Your task to perform on an android device: turn off smart reply in the gmail app Image 0: 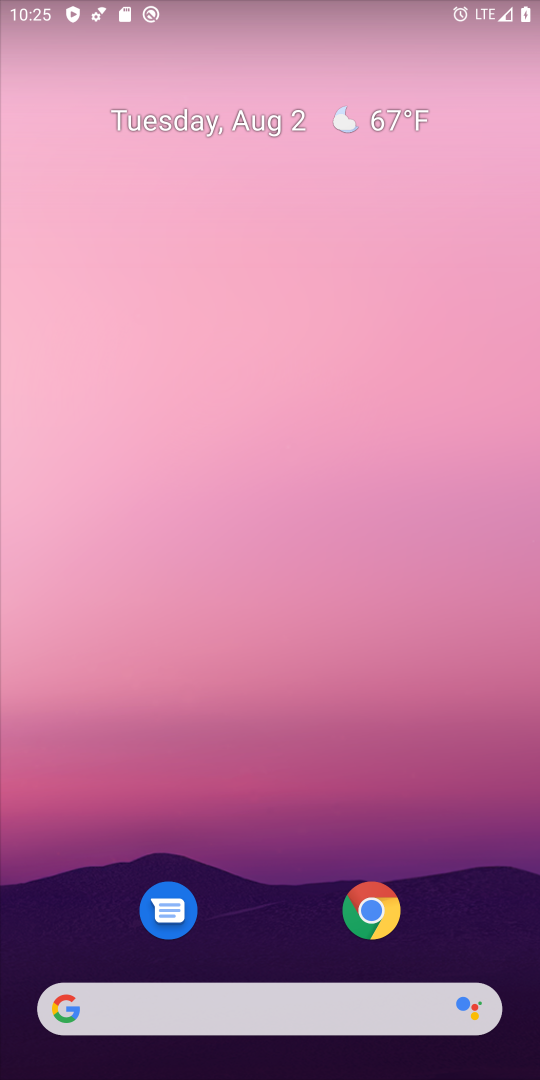
Step 0: drag from (296, 932) to (311, 773)
Your task to perform on an android device: turn off smart reply in the gmail app Image 1: 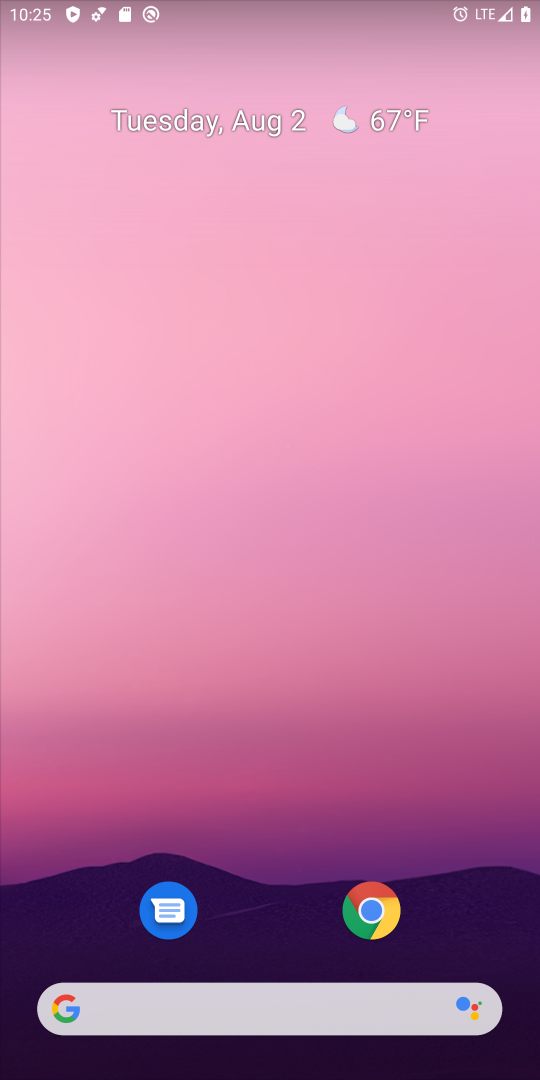
Step 1: drag from (269, 933) to (303, 150)
Your task to perform on an android device: turn off smart reply in the gmail app Image 2: 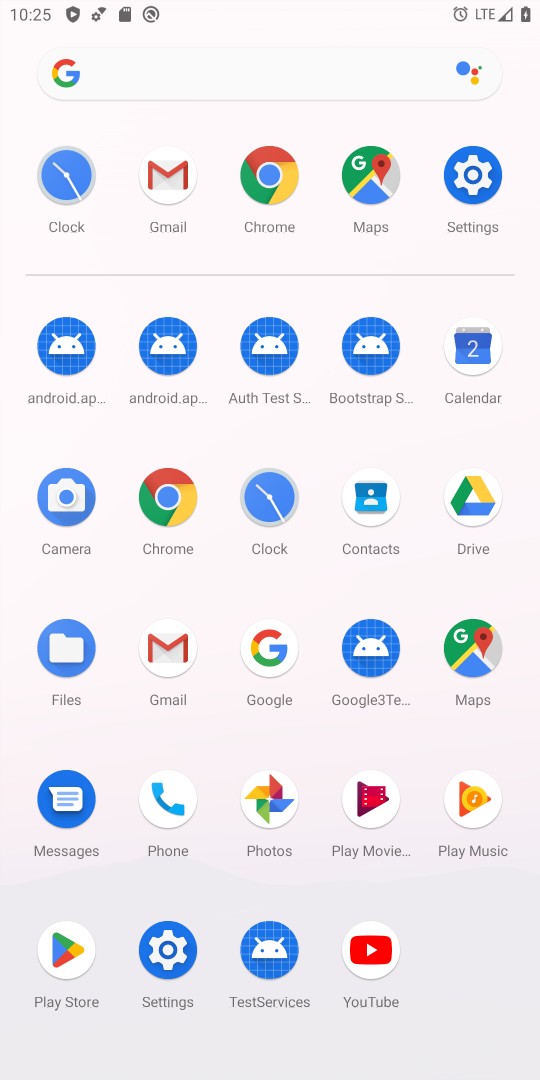
Step 2: click (176, 646)
Your task to perform on an android device: turn off smart reply in the gmail app Image 3: 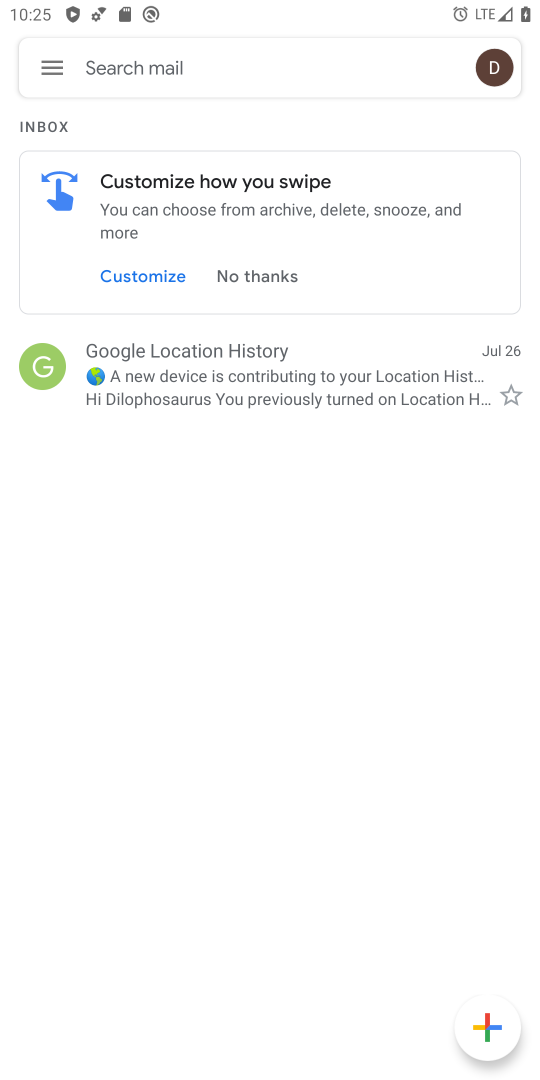
Step 3: click (58, 68)
Your task to perform on an android device: turn off smart reply in the gmail app Image 4: 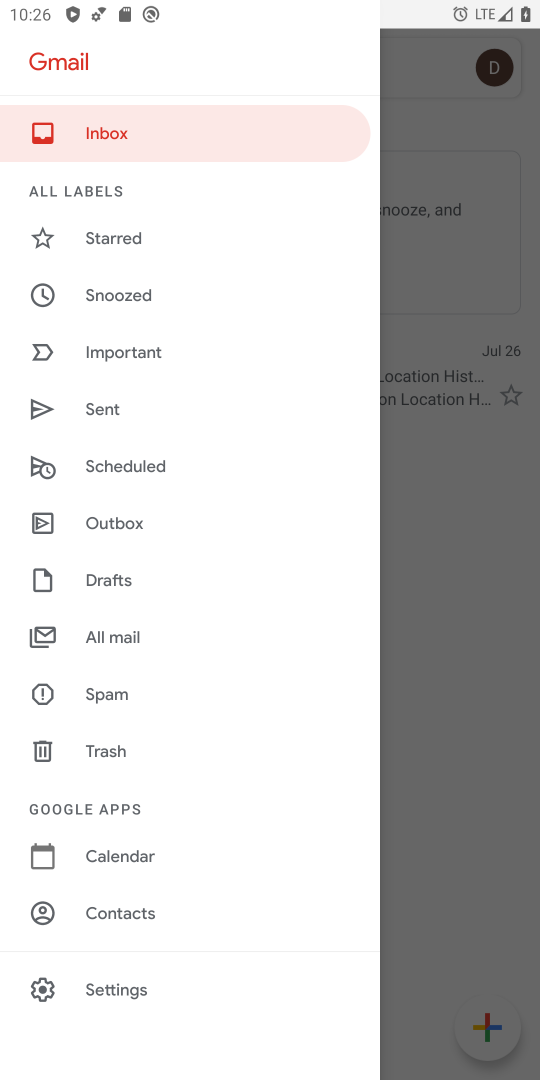
Step 4: click (117, 991)
Your task to perform on an android device: turn off smart reply in the gmail app Image 5: 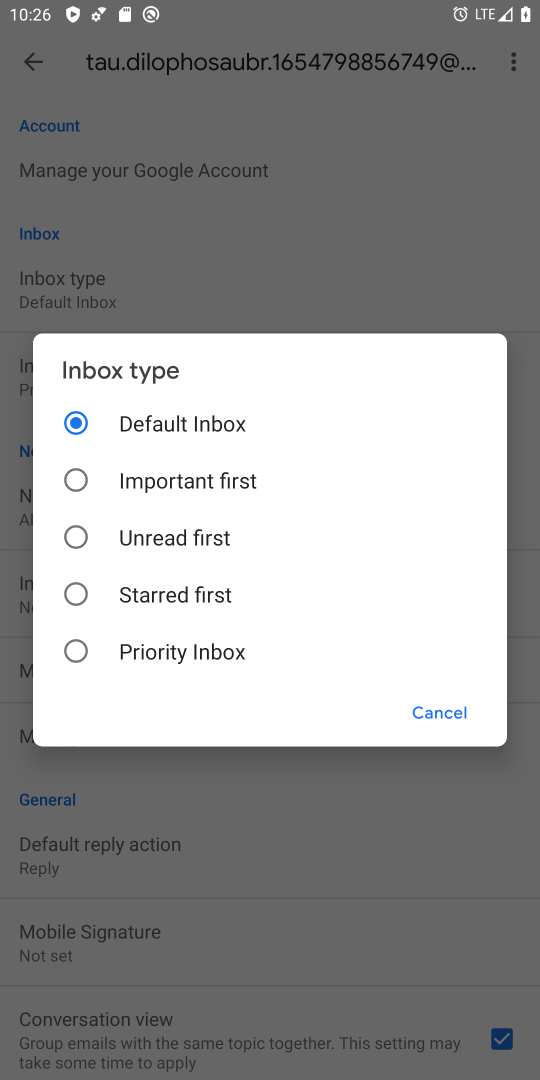
Step 5: click (124, 964)
Your task to perform on an android device: turn off smart reply in the gmail app Image 6: 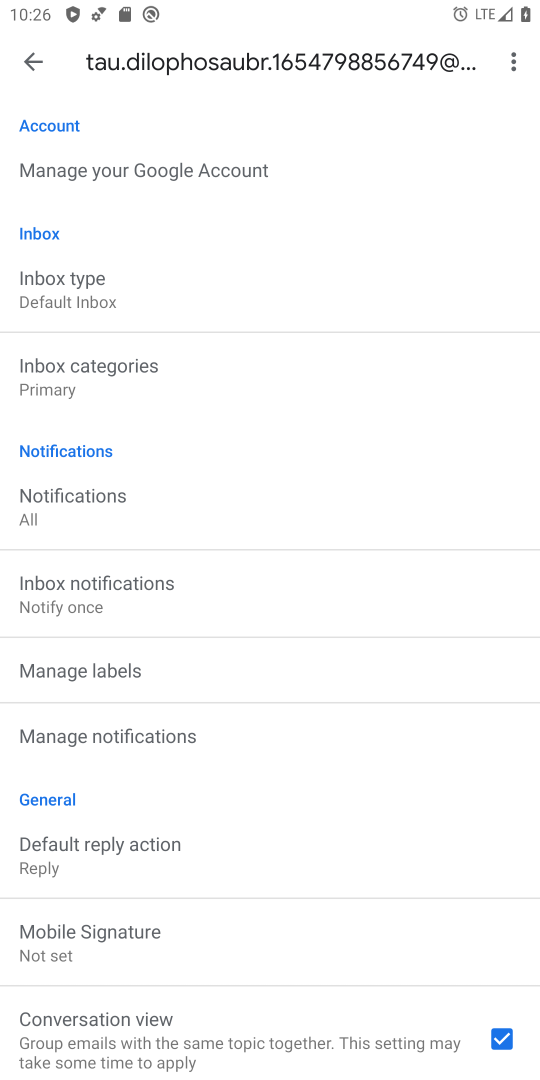
Step 6: drag from (213, 1026) to (350, 285)
Your task to perform on an android device: turn off smart reply in the gmail app Image 7: 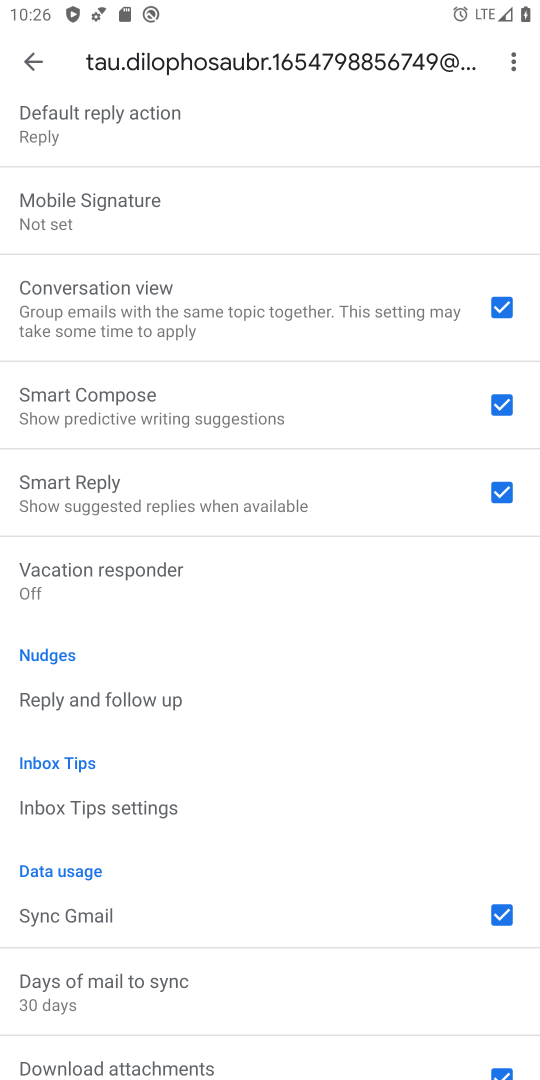
Step 7: click (501, 487)
Your task to perform on an android device: turn off smart reply in the gmail app Image 8: 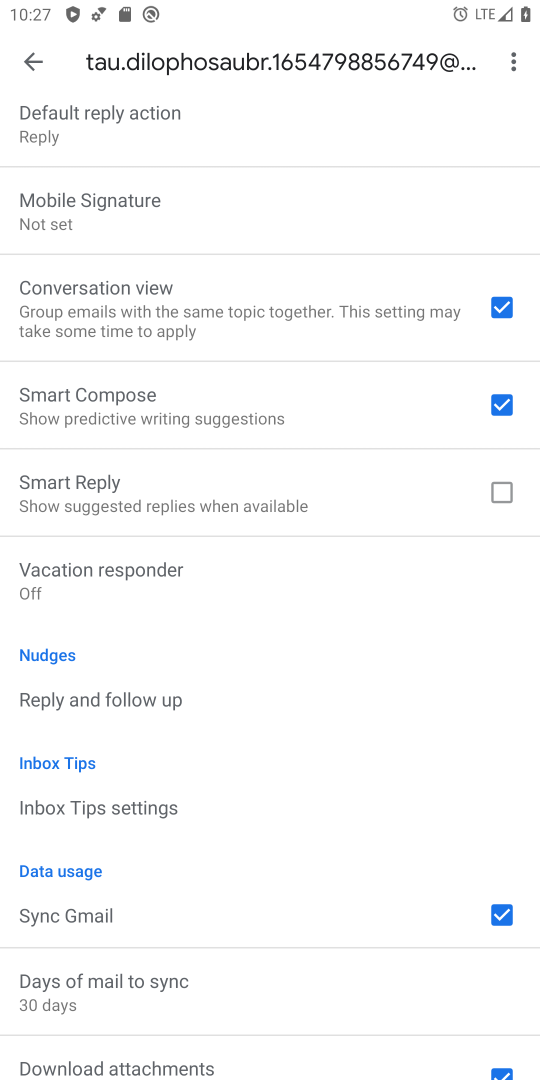
Step 8: task complete